Your task to perform on an android device: set default search engine in the chrome app Image 0: 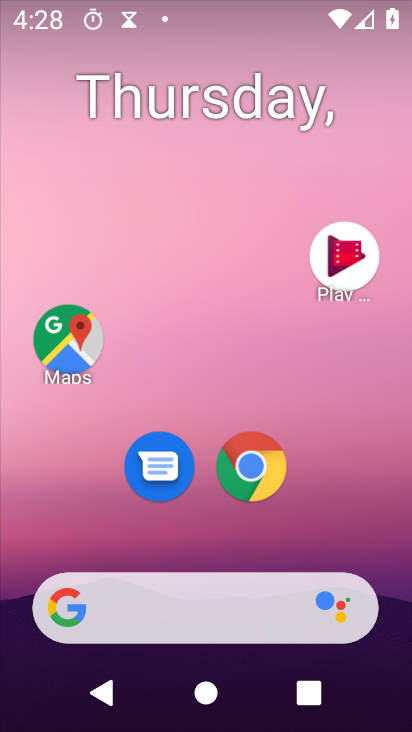
Step 0: drag from (243, 508) to (350, 6)
Your task to perform on an android device: set default search engine in the chrome app Image 1: 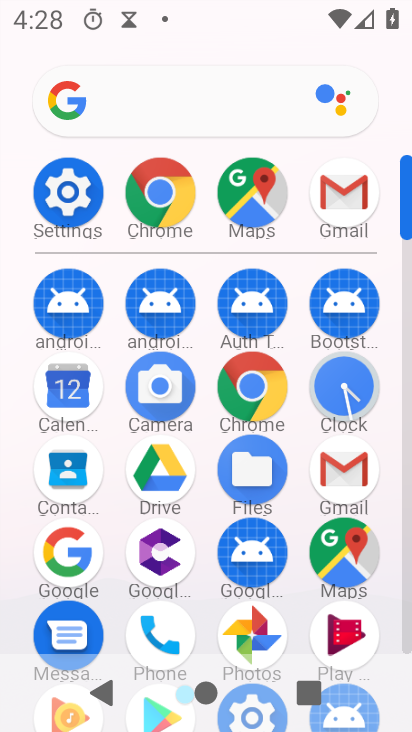
Step 1: click (264, 394)
Your task to perform on an android device: set default search engine in the chrome app Image 2: 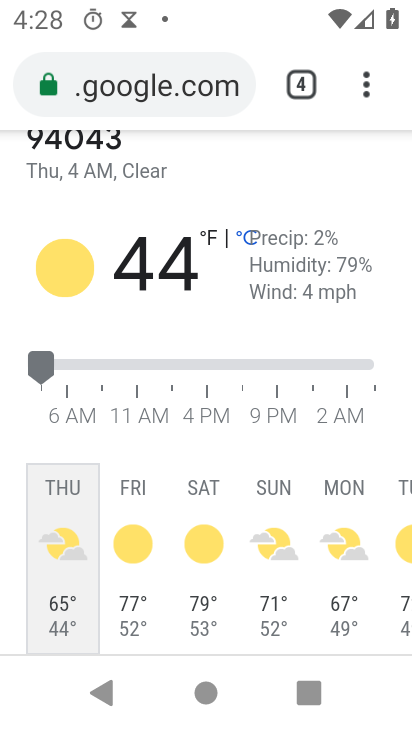
Step 2: drag from (359, 69) to (203, 580)
Your task to perform on an android device: set default search engine in the chrome app Image 3: 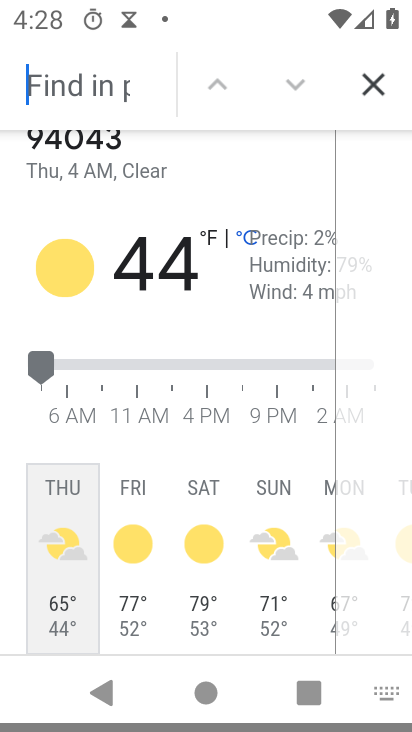
Step 3: click (167, 595)
Your task to perform on an android device: set default search engine in the chrome app Image 4: 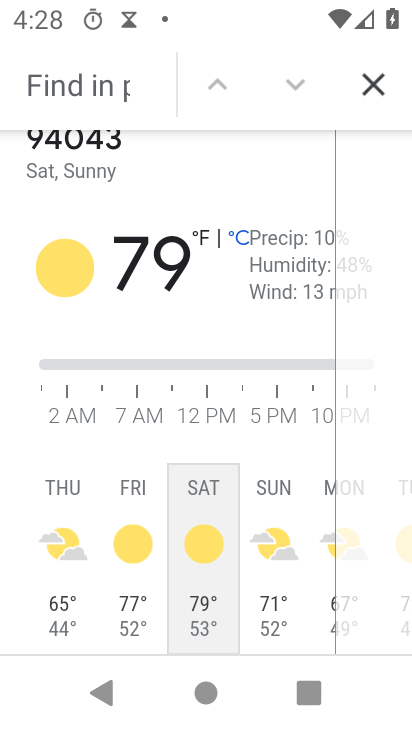
Step 4: drag from (155, 595) to (197, 523)
Your task to perform on an android device: set default search engine in the chrome app Image 5: 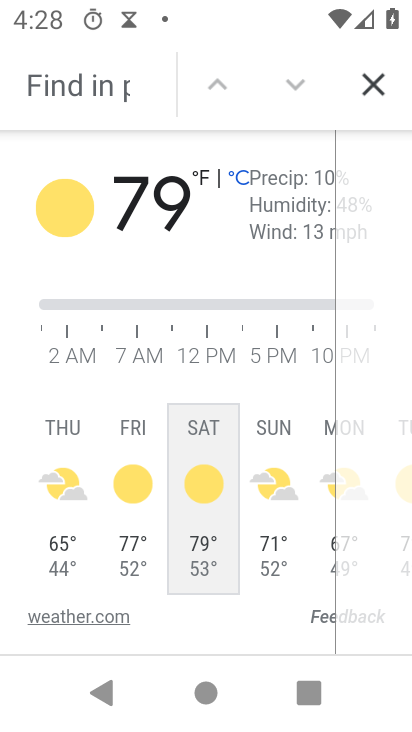
Step 5: click (378, 90)
Your task to perform on an android device: set default search engine in the chrome app Image 6: 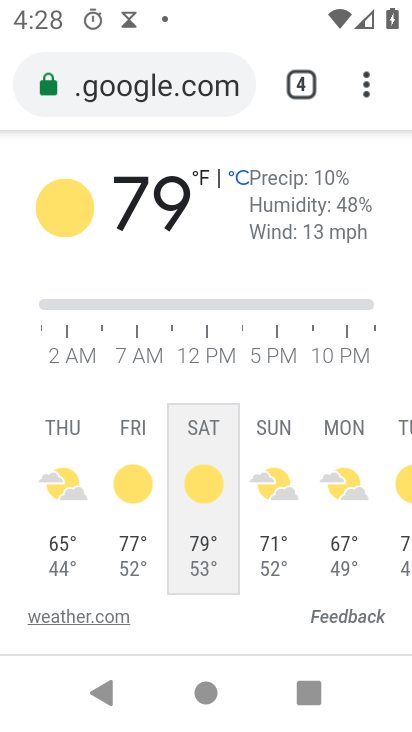
Step 6: drag from (362, 85) to (160, 534)
Your task to perform on an android device: set default search engine in the chrome app Image 7: 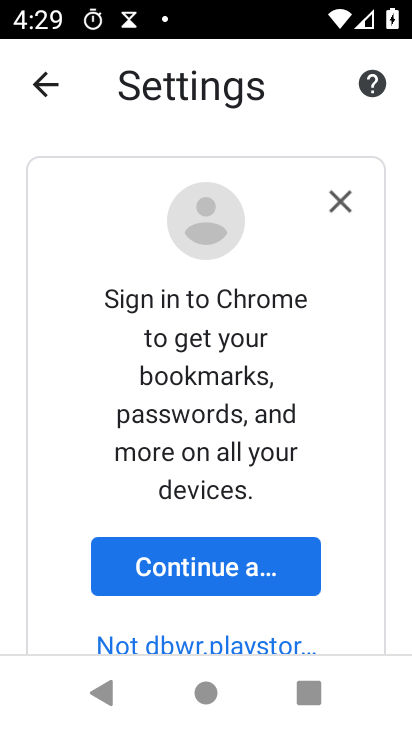
Step 7: drag from (230, 514) to (301, 65)
Your task to perform on an android device: set default search engine in the chrome app Image 8: 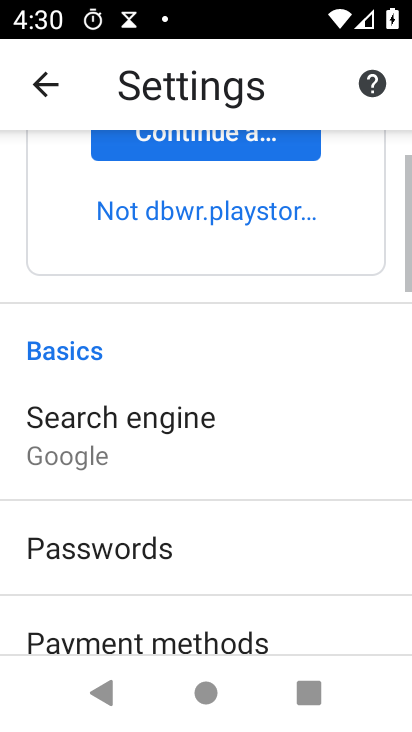
Step 8: drag from (253, 625) to (280, 276)
Your task to perform on an android device: set default search engine in the chrome app Image 9: 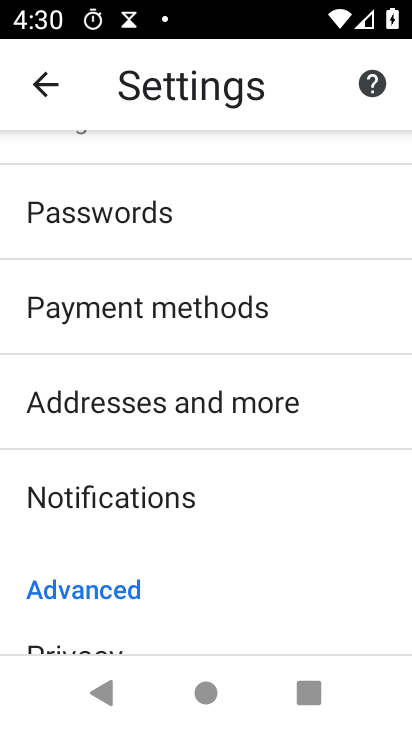
Step 9: drag from (262, 623) to (252, 167)
Your task to perform on an android device: set default search engine in the chrome app Image 10: 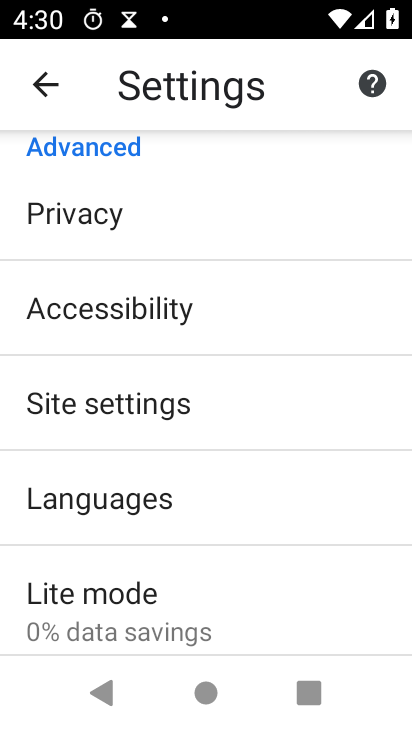
Step 10: drag from (221, 629) to (212, 137)
Your task to perform on an android device: set default search engine in the chrome app Image 11: 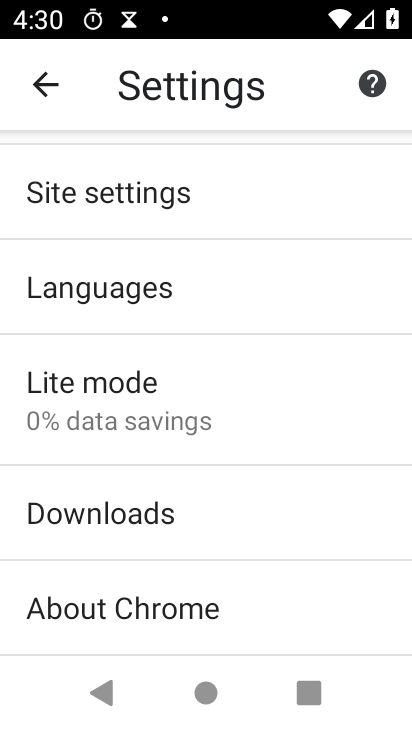
Step 11: drag from (238, 239) to (245, 655)
Your task to perform on an android device: set default search engine in the chrome app Image 12: 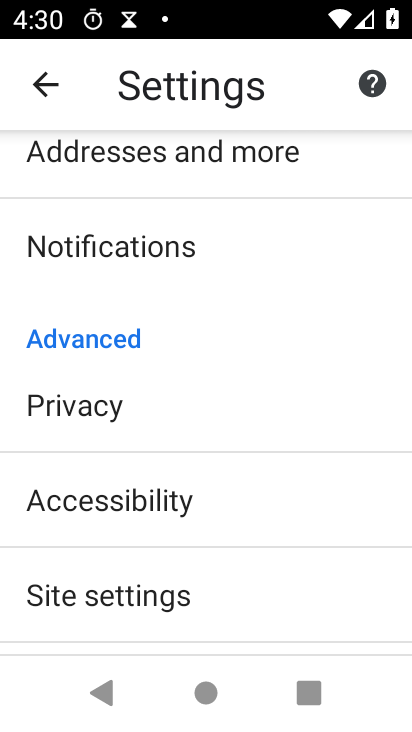
Step 12: drag from (206, 248) to (248, 686)
Your task to perform on an android device: set default search engine in the chrome app Image 13: 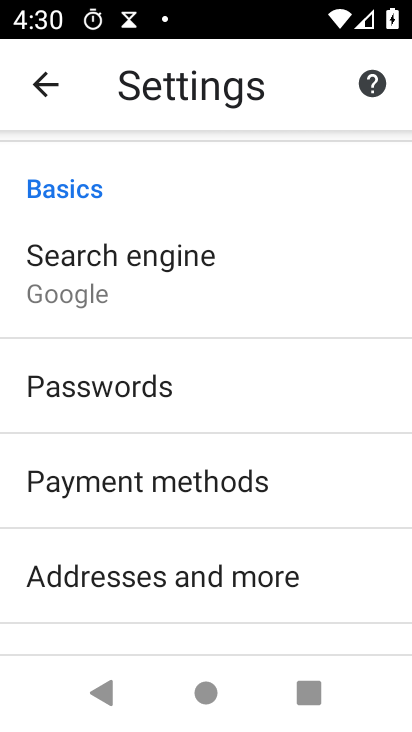
Step 13: click (235, 296)
Your task to perform on an android device: set default search engine in the chrome app Image 14: 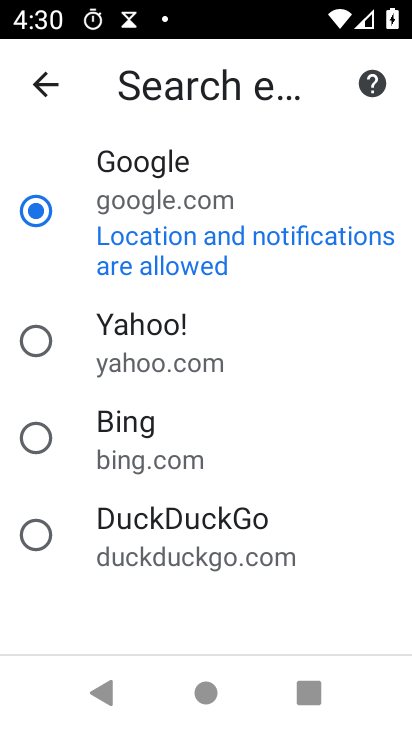
Step 14: task complete